Your task to perform on an android device: set default search engine in the chrome app Image 0: 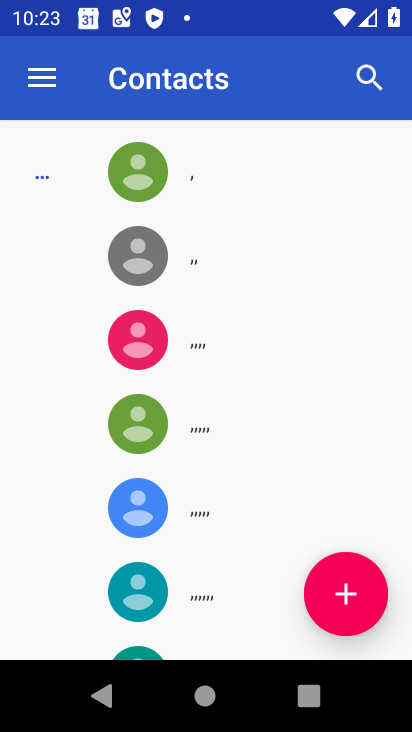
Step 0: press back button
Your task to perform on an android device: set default search engine in the chrome app Image 1: 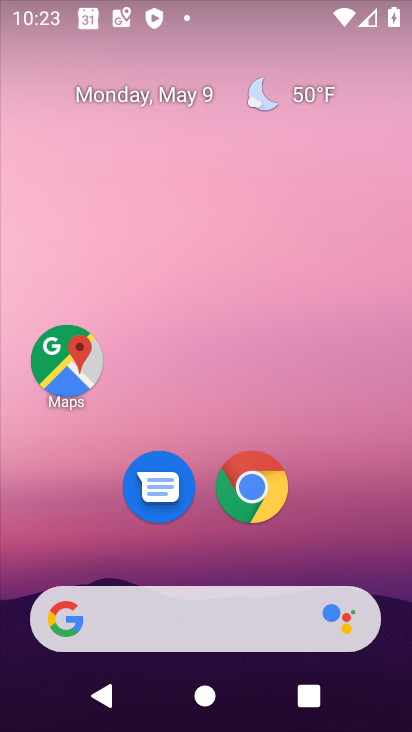
Step 1: drag from (40, 566) to (236, 111)
Your task to perform on an android device: set default search engine in the chrome app Image 2: 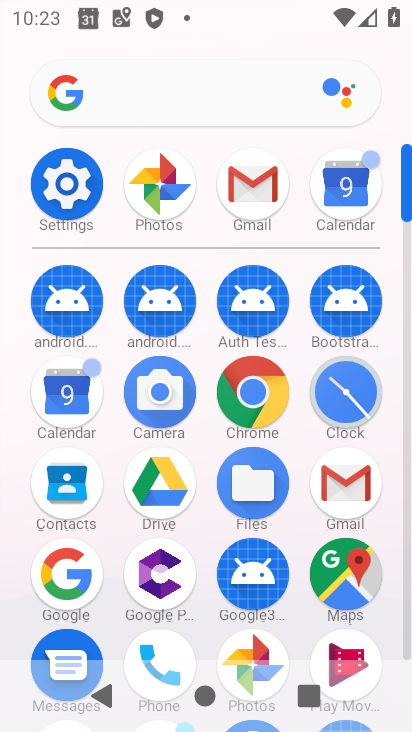
Step 2: click (65, 163)
Your task to perform on an android device: set default search engine in the chrome app Image 3: 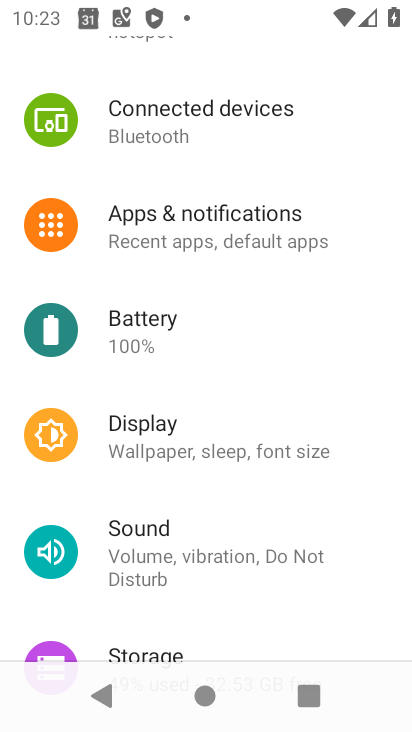
Step 3: press back button
Your task to perform on an android device: set default search engine in the chrome app Image 4: 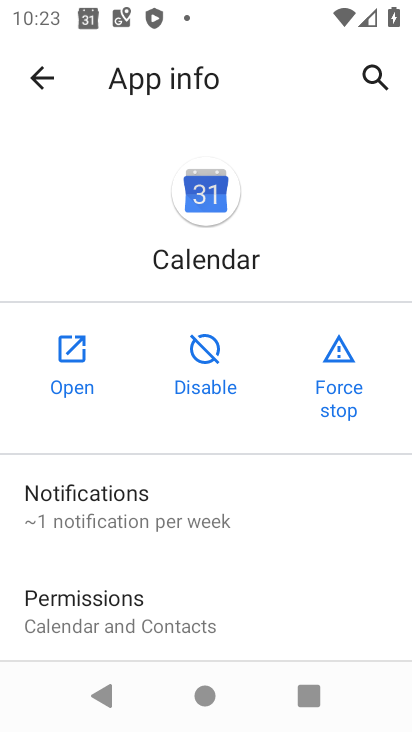
Step 4: press home button
Your task to perform on an android device: set default search engine in the chrome app Image 5: 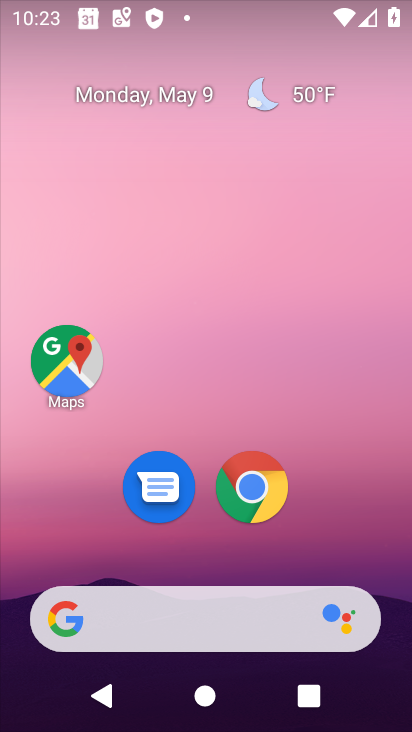
Step 5: click (248, 478)
Your task to perform on an android device: set default search engine in the chrome app Image 6: 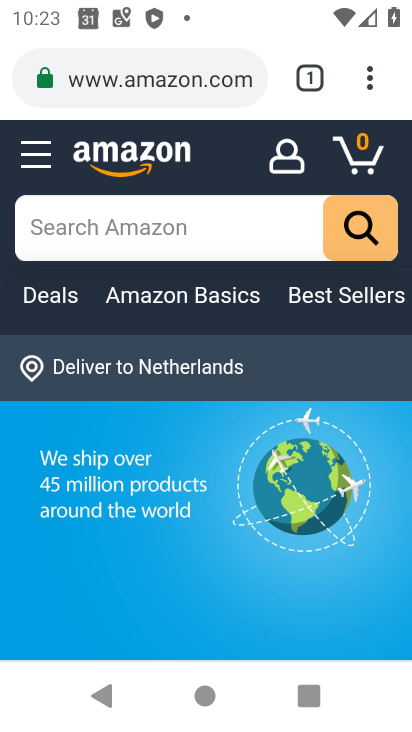
Step 6: click (346, 84)
Your task to perform on an android device: set default search engine in the chrome app Image 7: 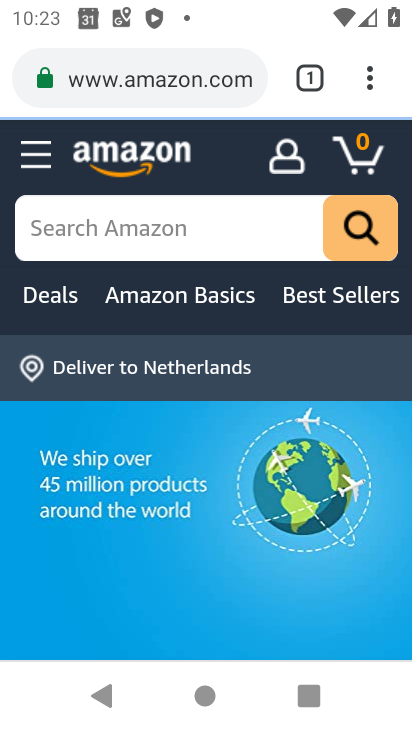
Step 7: click (356, 73)
Your task to perform on an android device: set default search engine in the chrome app Image 8: 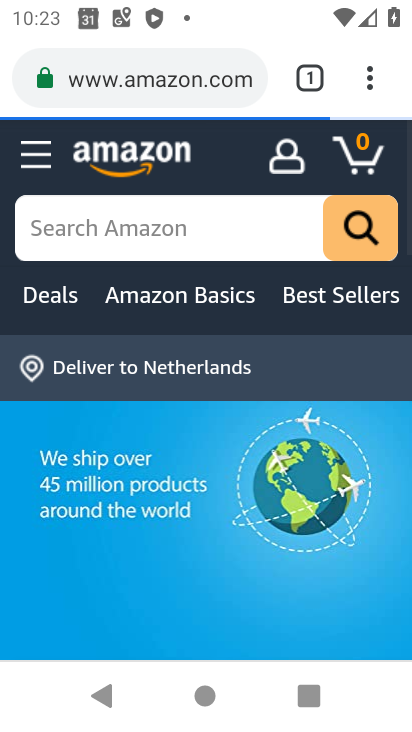
Step 8: click (361, 74)
Your task to perform on an android device: set default search engine in the chrome app Image 9: 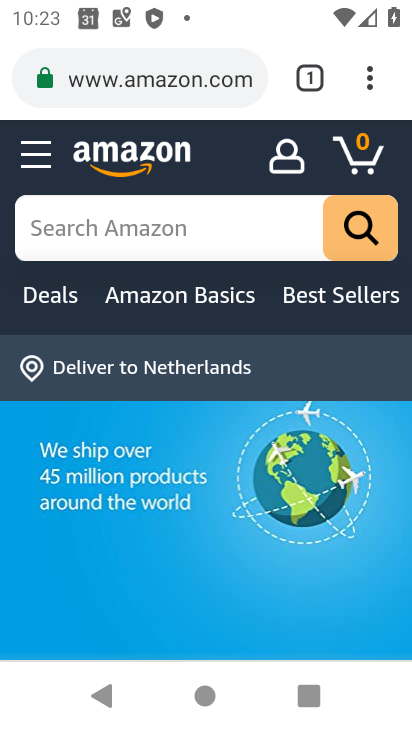
Step 9: click (366, 78)
Your task to perform on an android device: set default search engine in the chrome app Image 10: 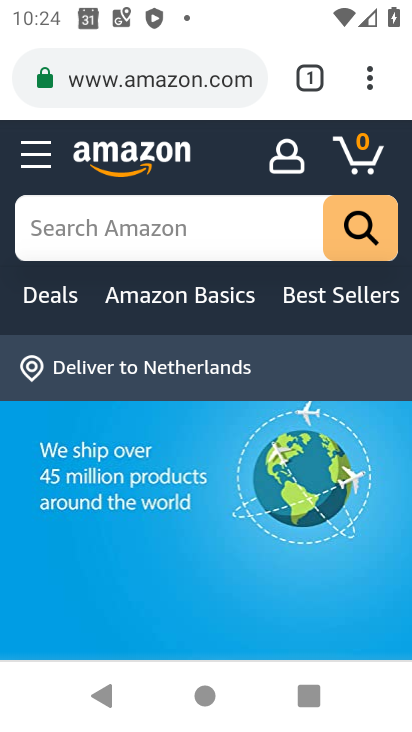
Step 10: click (366, 78)
Your task to perform on an android device: set default search engine in the chrome app Image 11: 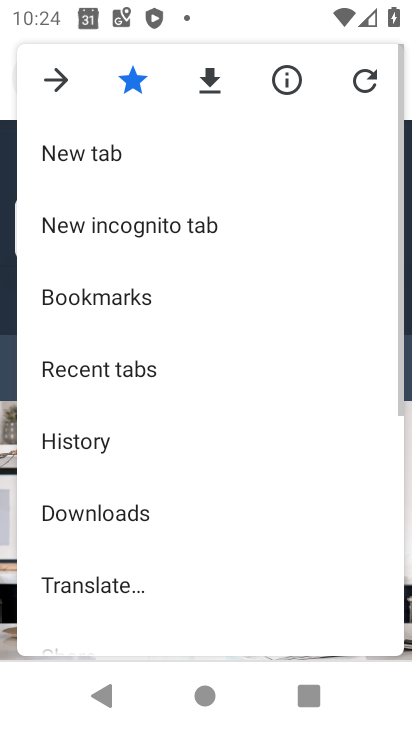
Step 11: drag from (97, 606) to (301, 185)
Your task to perform on an android device: set default search engine in the chrome app Image 12: 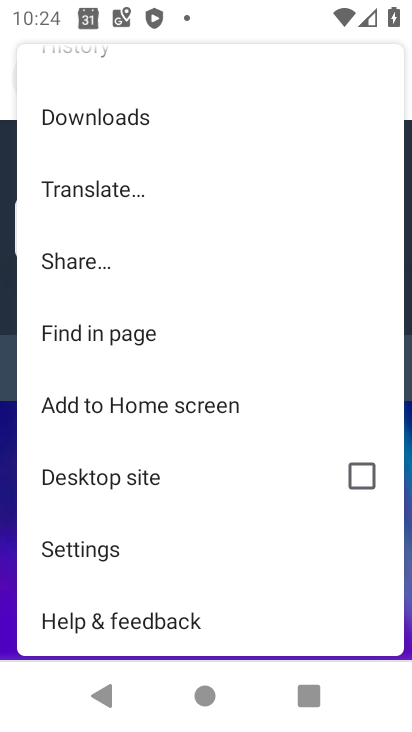
Step 12: click (101, 527)
Your task to perform on an android device: set default search engine in the chrome app Image 13: 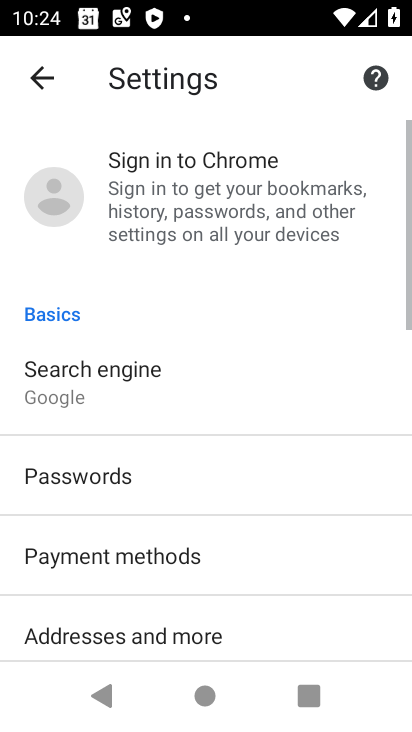
Step 13: click (88, 380)
Your task to perform on an android device: set default search engine in the chrome app Image 14: 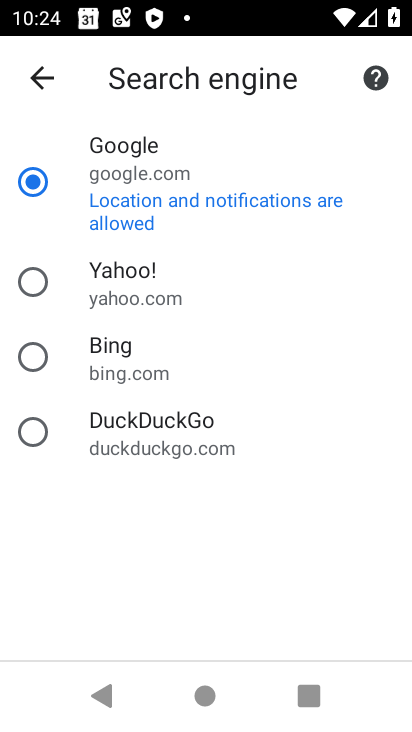
Step 14: task complete